Your task to perform on an android device: Open location settings Image 0: 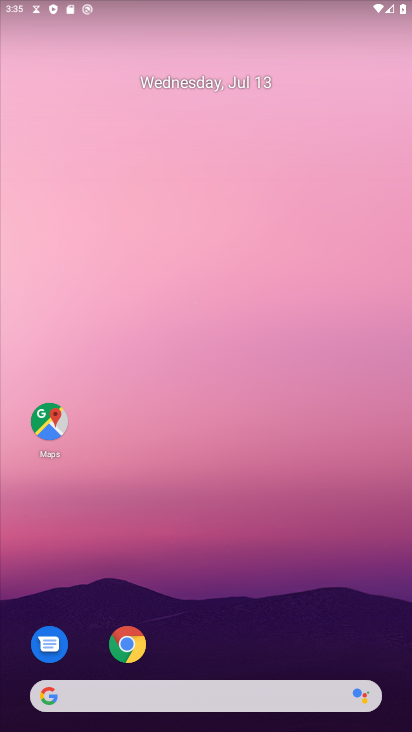
Step 0: drag from (350, 615) to (273, 1)
Your task to perform on an android device: Open location settings Image 1: 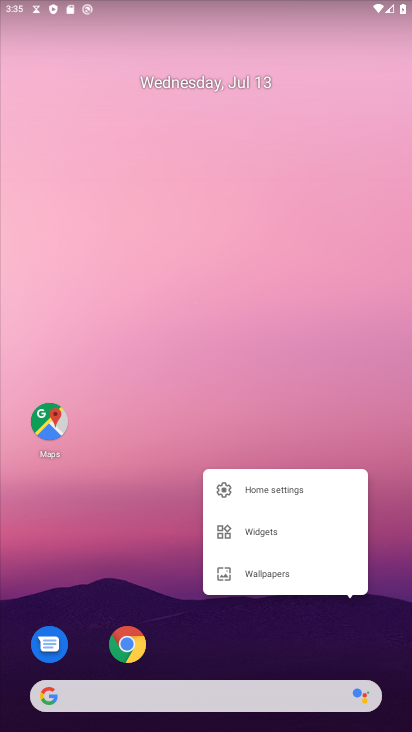
Step 1: click (323, 293)
Your task to perform on an android device: Open location settings Image 2: 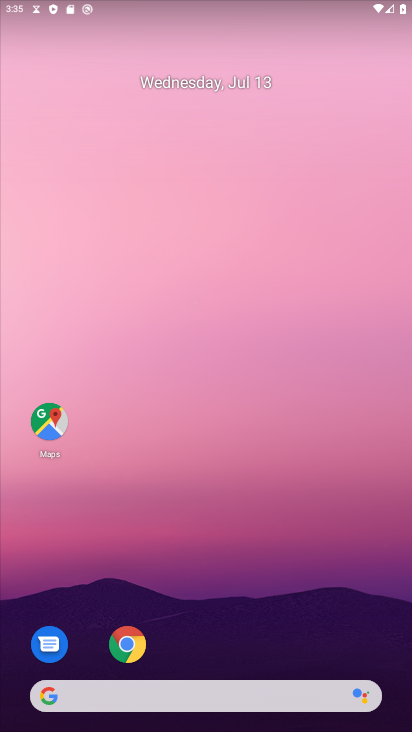
Step 2: drag from (308, 605) to (285, 321)
Your task to perform on an android device: Open location settings Image 3: 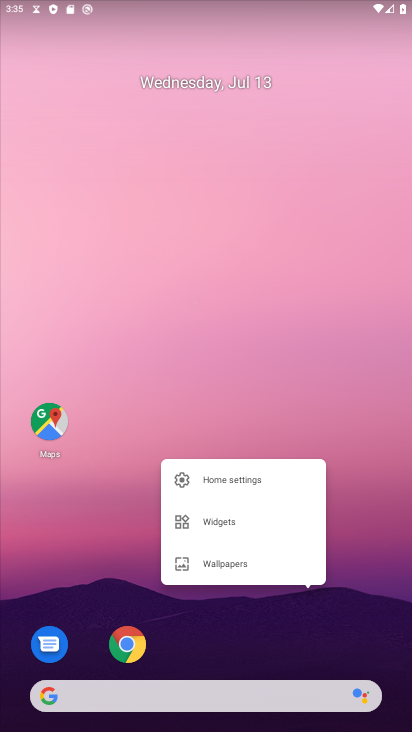
Step 3: click (214, 418)
Your task to perform on an android device: Open location settings Image 4: 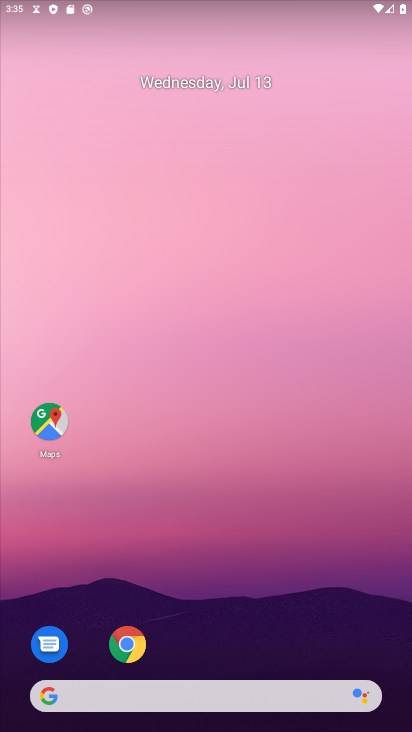
Step 4: drag from (302, 618) to (183, 5)
Your task to perform on an android device: Open location settings Image 5: 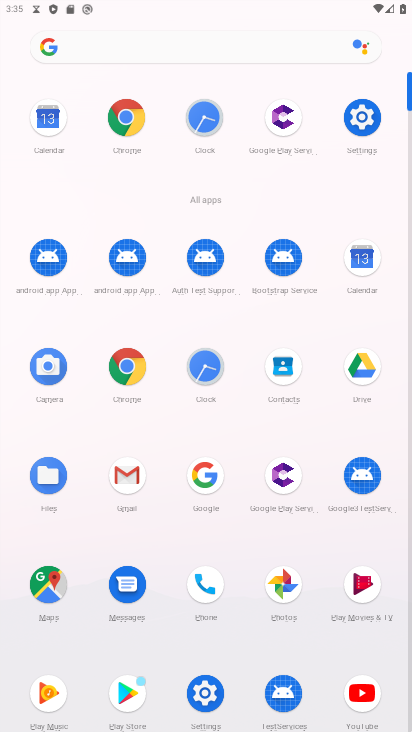
Step 5: click (203, 70)
Your task to perform on an android device: Open location settings Image 6: 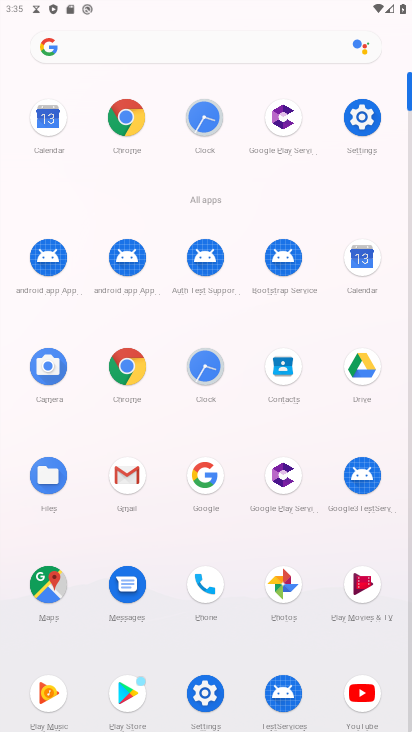
Step 6: click (213, 694)
Your task to perform on an android device: Open location settings Image 7: 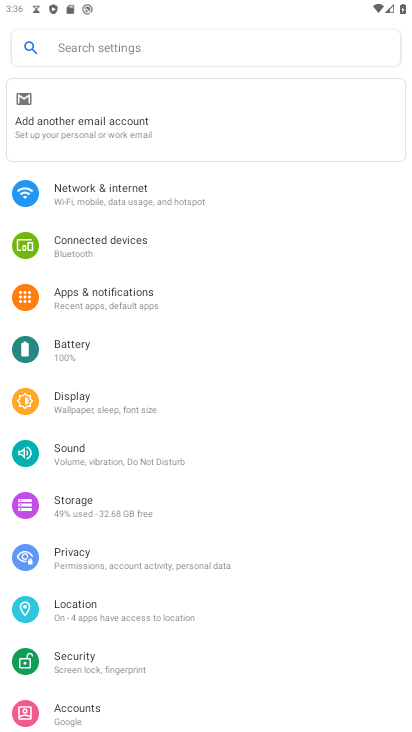
Step 7: click (130, 610)
Your task to perform on an android device: Open location settings Image 8: 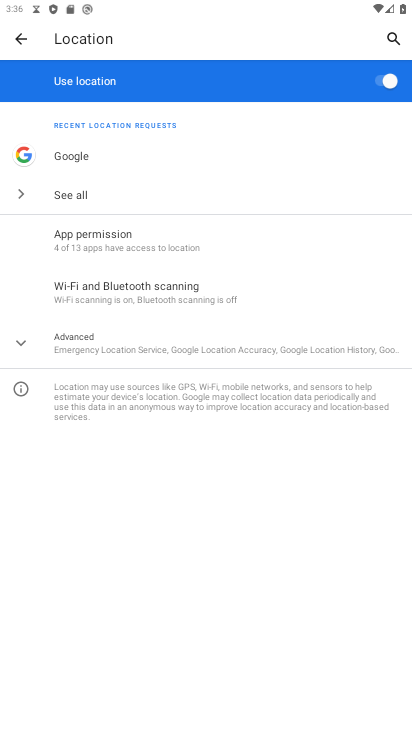
Step 8: task complete